Your task to perform on an android device: turn on showing notifications on the lock screen Image 0: 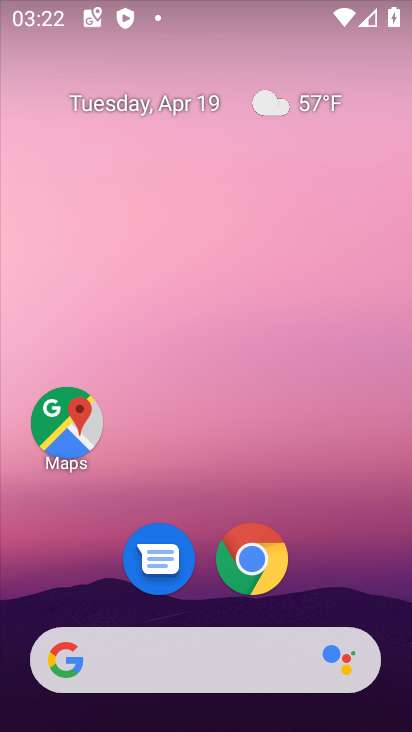
Step 0: drag from (204, 594) to (286, 47)
Your task to perform on an android device: turn on showing notifications on the lock screen Image 1: 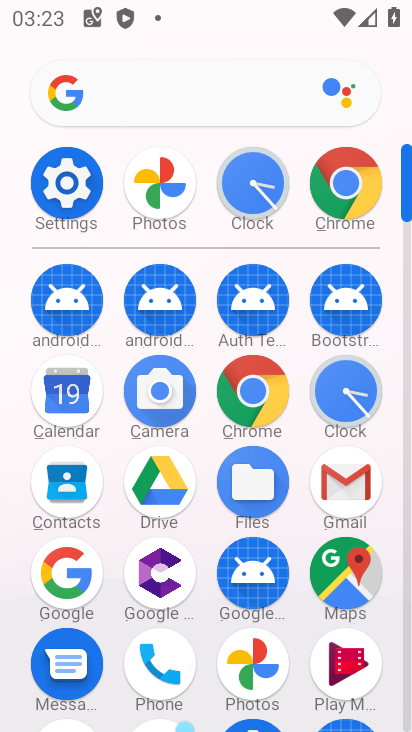
Step 1: click (60, 174)
Your task to perform on an android device: turn on showing notifications on the lock screen Image 2: 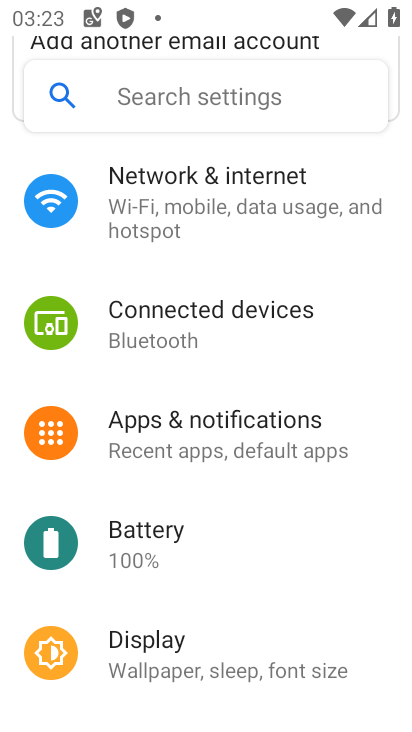
Step 2: click (201, 431)
Your task to perform on an android device: turn on showing notifications on the lock screen Image 3: 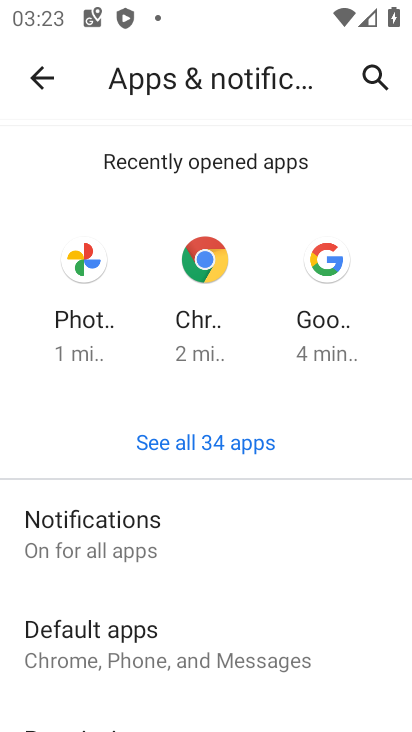
Step 3: click (194, 533)
Your task to perform on an android device: turn on showing notifications on the lock screen Image 4: 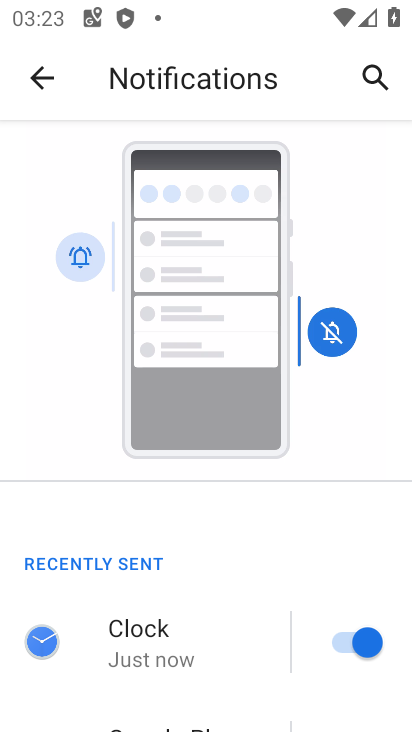
Step 4: drag from (201, 677) to (218, 60)
Your task to perform on an android device: turn on showing notifications on the lock screen Image 5: 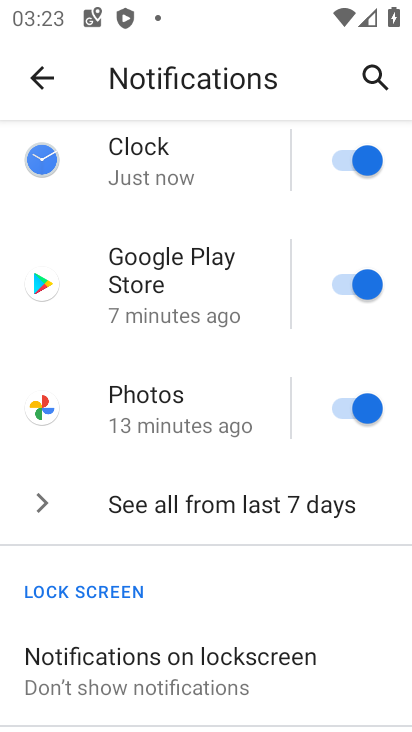
Step 5: click (173, 672)
Your task to perform on an android device: turn on showing notifications on the lock screen Image 6: 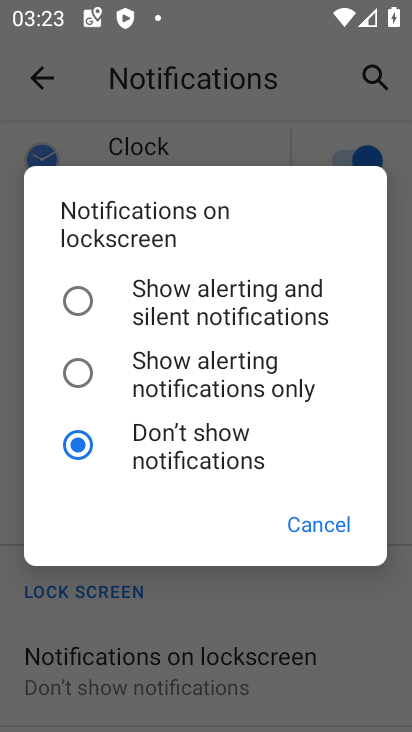
Step 6: click (84, 303)
Your task to perform on an android device: turn on showing notifications on the lock screen Image 7: 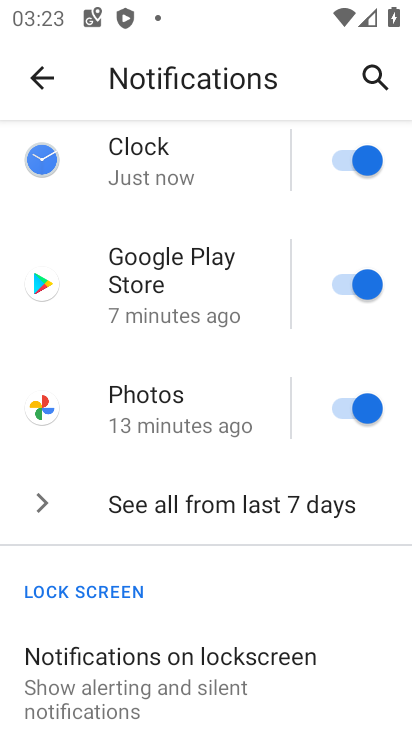
Step 7: task complete